Your task to perform on an android device: turn off location history Image 0: 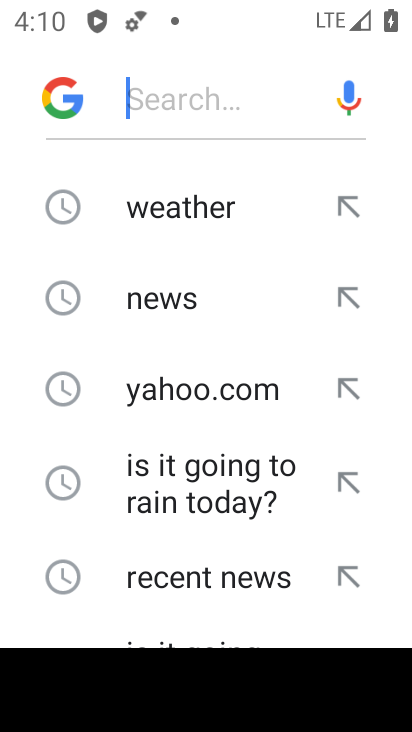
Step 0: press home button
Your task to perform on an android device: turn off location history Image 1: 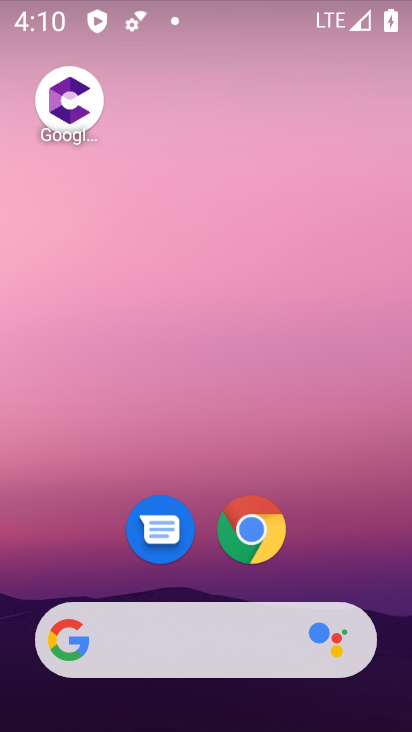
Step 1: drag from (204, 519) to (307, 0)
Your task to perform on an android device: turn off location history Image 2: 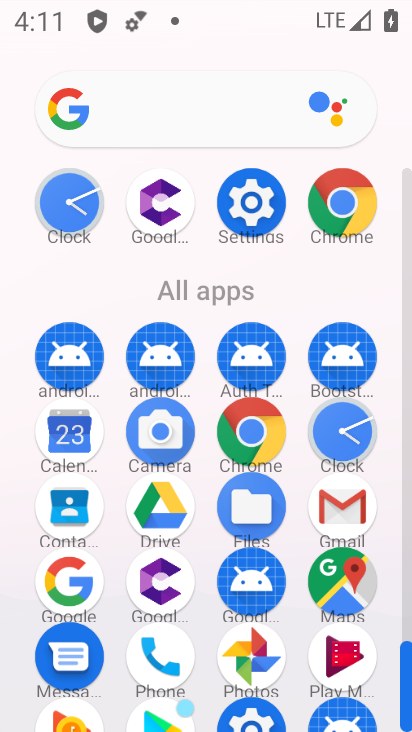
Step 2: click (242, 216)
Your task to perform on an android device: turn off location history Image 3: 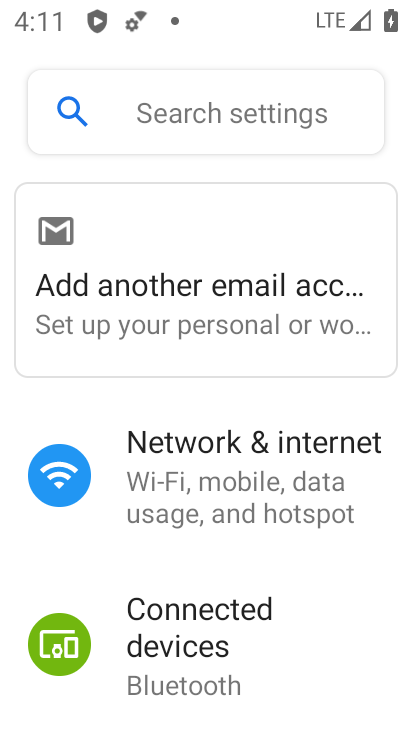
Step 3: drag from (236, 497) to (235, 104)
Your task to perform on an android device: turn off location history Image 4: 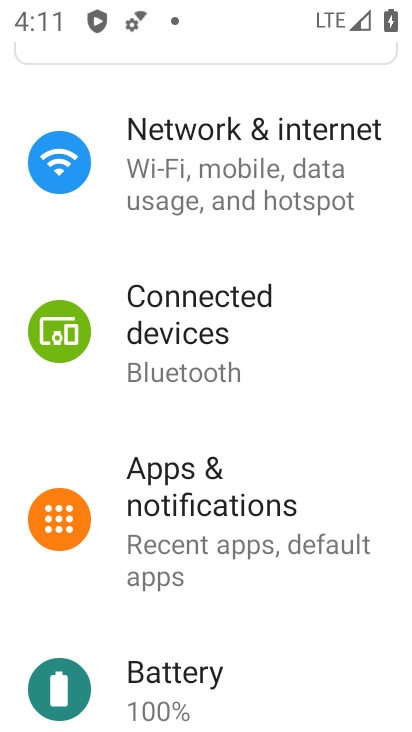
Step 4: drag from (317, 608) to (408, 128)
Your task to perform on an android device: turn off location history Image 5: 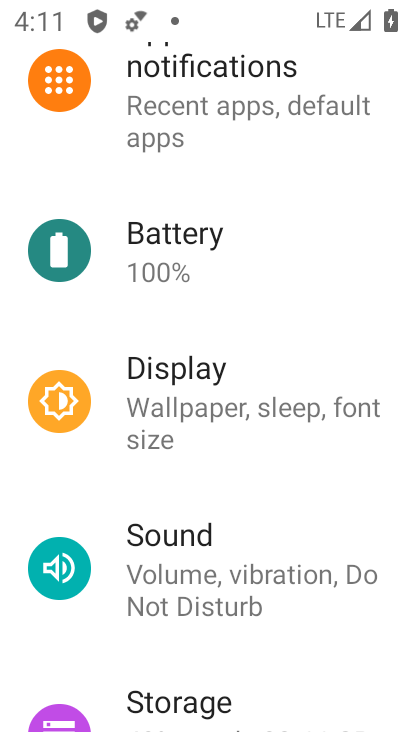
Step 5: drag from (213, 609) to (240, 214)
Your task to perform on an android device: turn off location history Image 6: 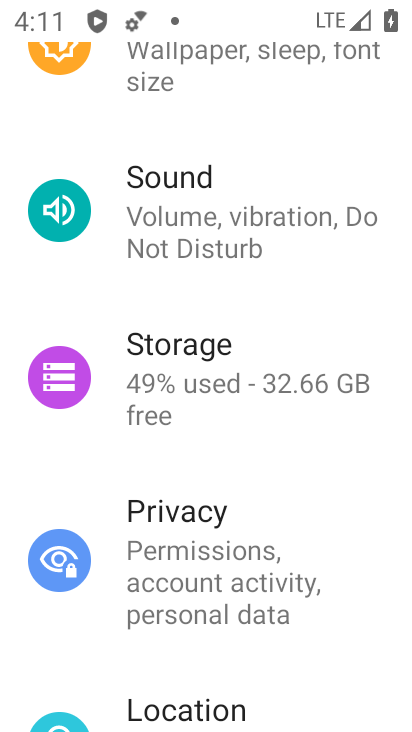
Step 6: drag from (238, 539) to (240, 197)
Your task to perform on an android device: turn off location history Image 7: 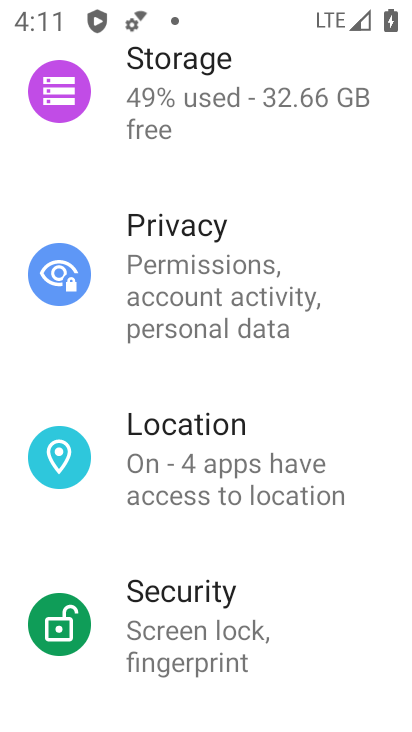
Step 7: click (198, 492)
Your task to perform on an android device: turn off location history Image 8: 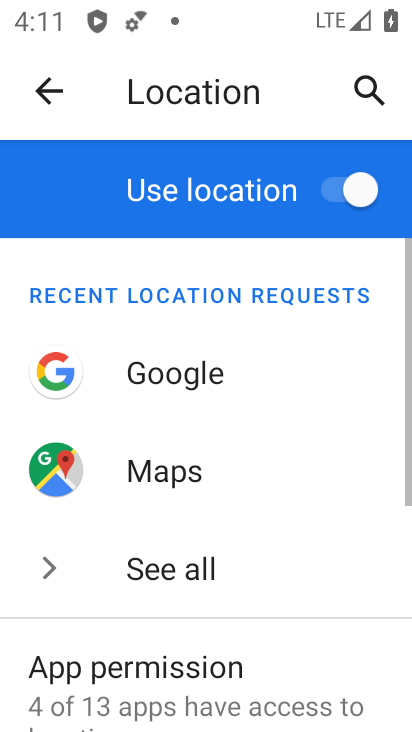
Step 8: drag from (205, 682) to (227, 300)
Your task to perform on an android device: turn off location history Image 9: 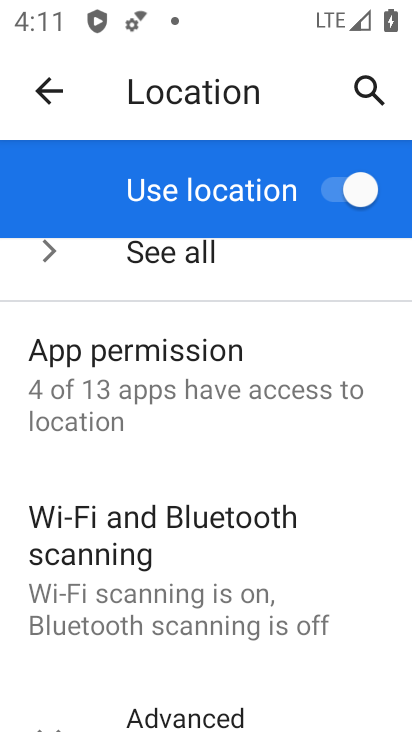
Step 9: drag from (191, 683) to (245, 320)
Your task to perform on an android device: turn off location history Image 10: 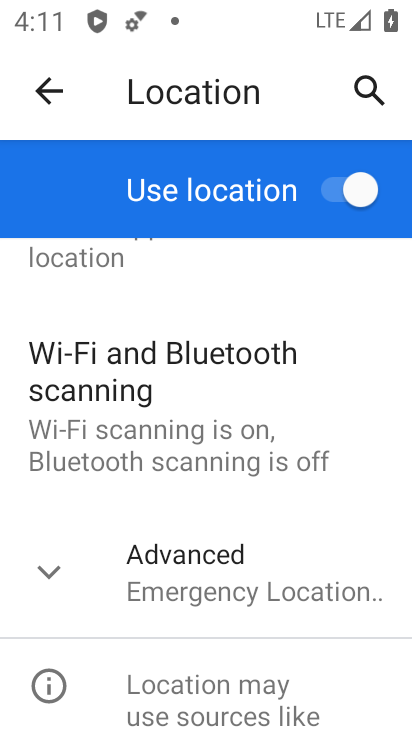
Step 10: click (237, 578)
Your task to perform on an android device: turn off location history Image 11: 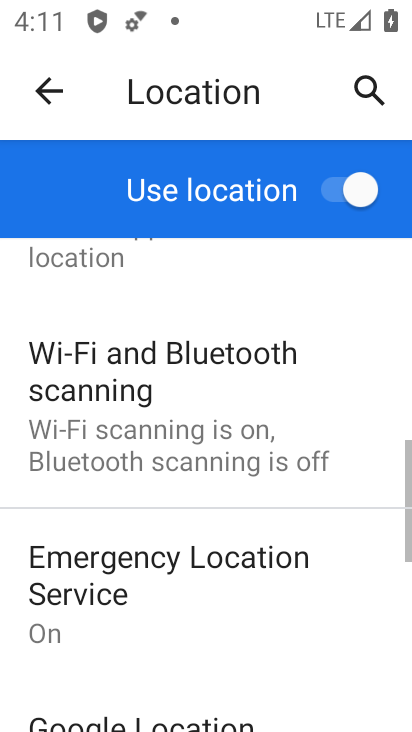
Step 11: drag from (264, 629) to (301, 250)
Your task to perform on an android device: turn off location history Image 12: 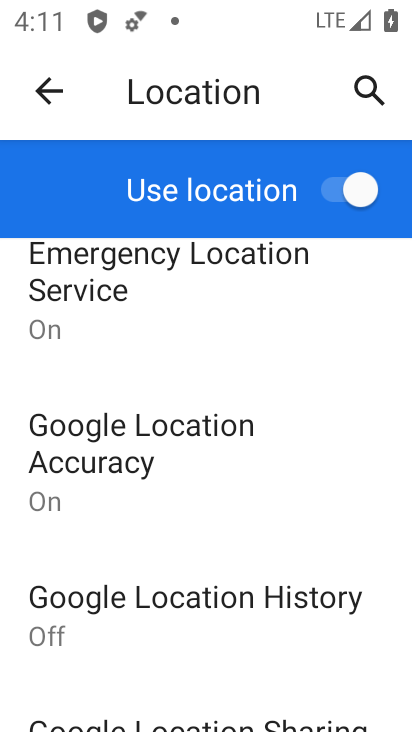
Step 12: click (168, 600)
Your task to perform on an android device: turn off location history Image 13: 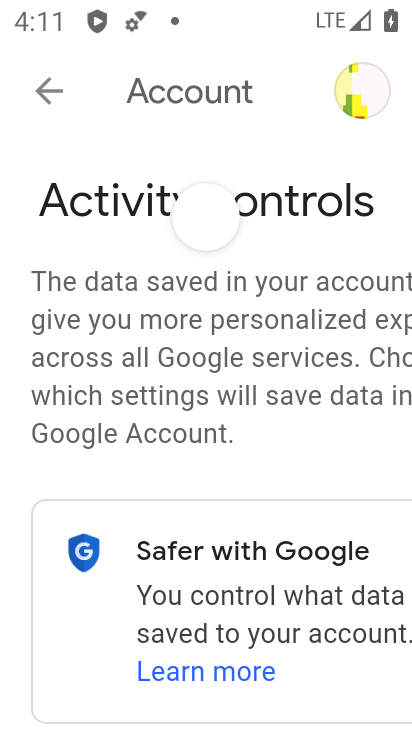
Step 13: task complete